Your task to perform on an android device: turn on javascript in the chrome app Image 0: 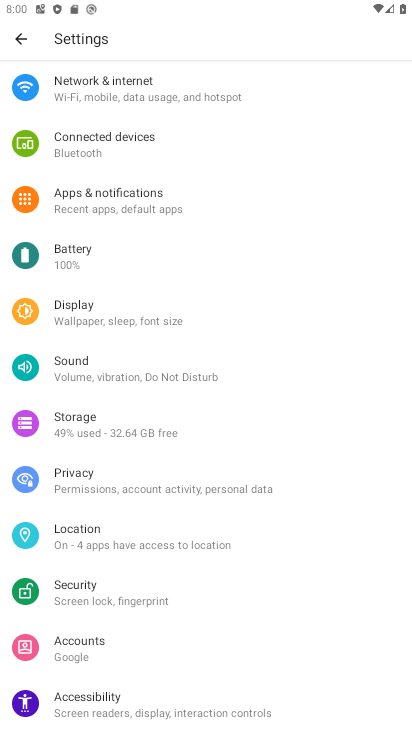
Step 0: press home button
Your task to perform on an android device: turn on javascript in the chrome app Image 1: 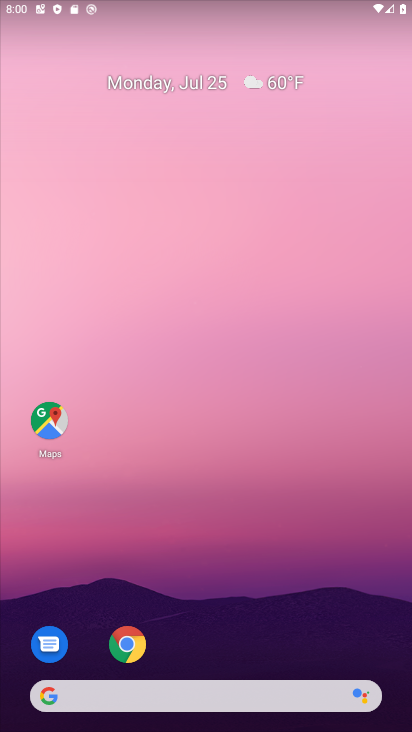
Step 1: drag from (234, 437) to (230, 236)
Your task to perform on an android device: turn on javascript in the chrome app Image 2: 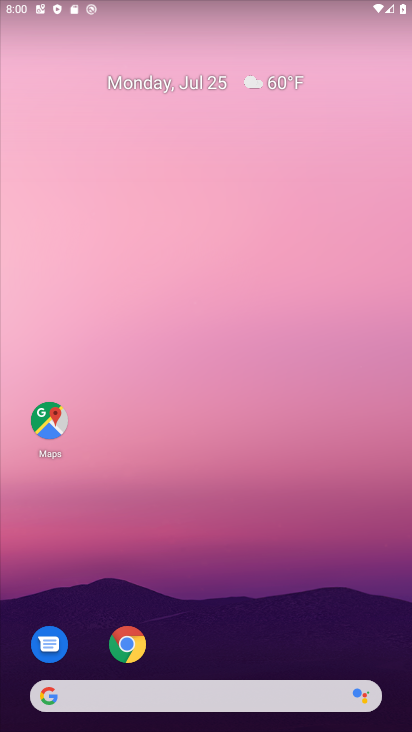
Step 2: click (133, 643)
Your task to perform on an android device: turn on javascript in the chrome app Image 3: 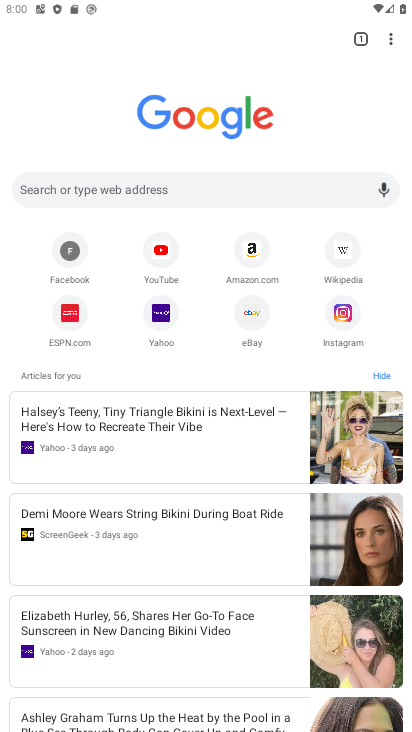
Step 3: task complete